Your task to perform on an android device: Search for good Japanese restaurants Image 0: 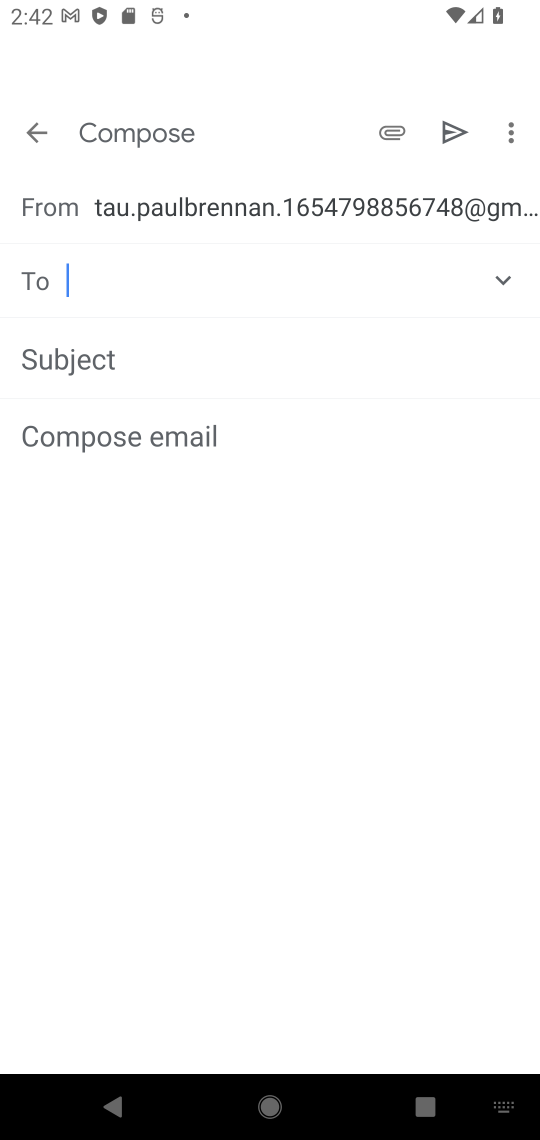
Step 0: press home button
Your task to perform on an android device: Search for good Japanese restaurants Image 1: 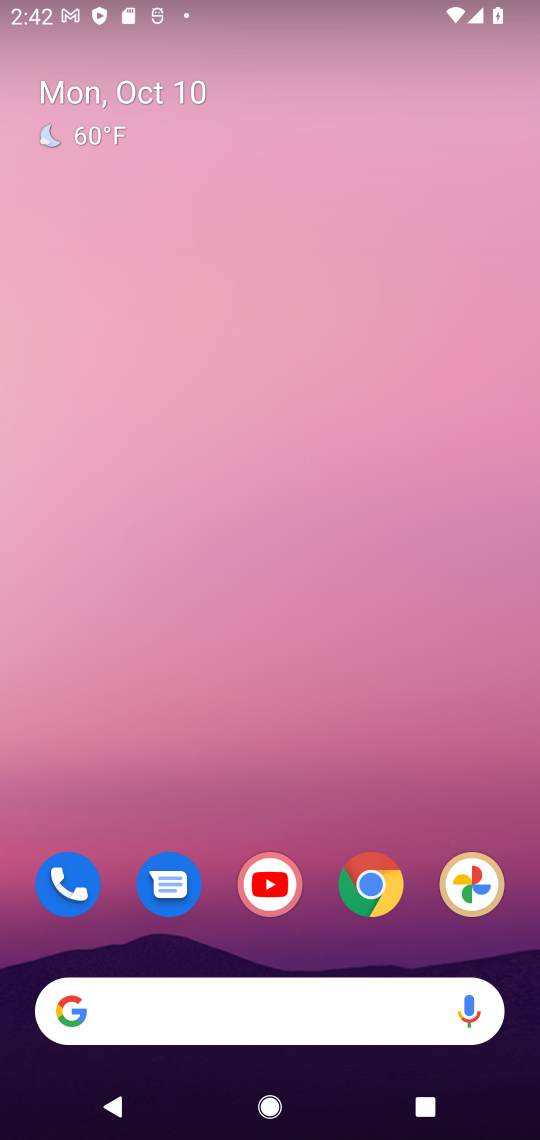
Step 1: click (377, 903)
Your task to perform on an android device: Search for good Japanese restaurants Image 2: 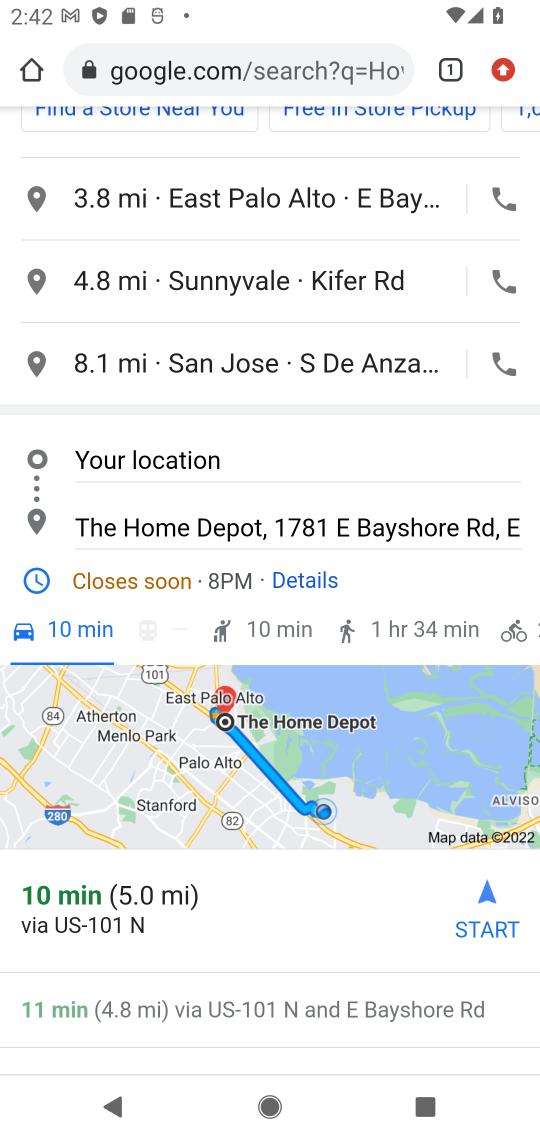
Step 2: click (331, 81)
Your task to perform on an android device: Search for good Japanese restaurants Image 3: 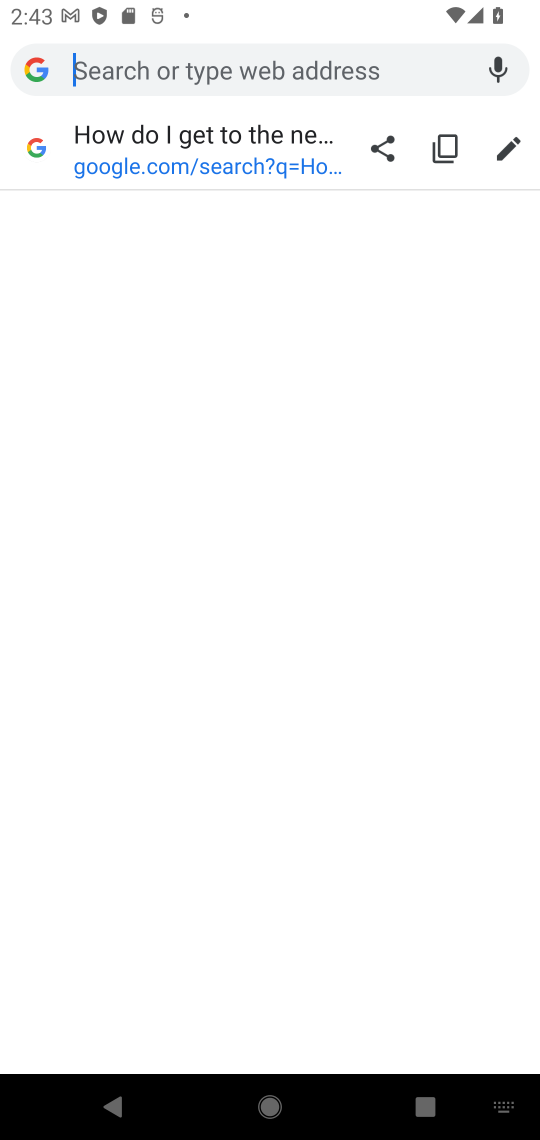
Step 3: type " good Japanese restaurants"
Your task to perform on an android device: Search for good Japanese restaurants Image 4: 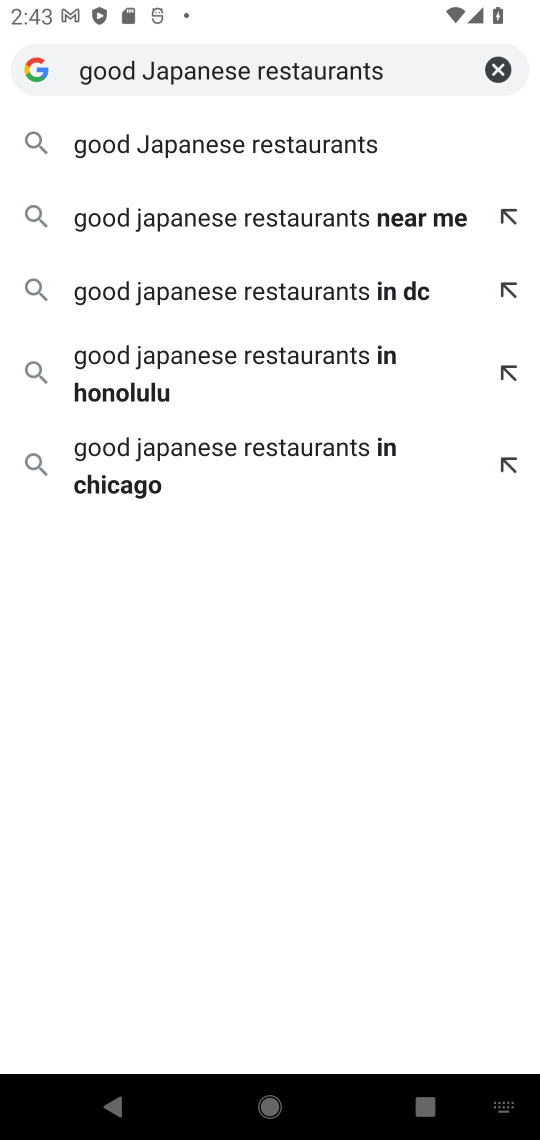
Step 4: click (302, 147)
Your task to perform on an android device: Search for good Japanese restaurants Image 5: 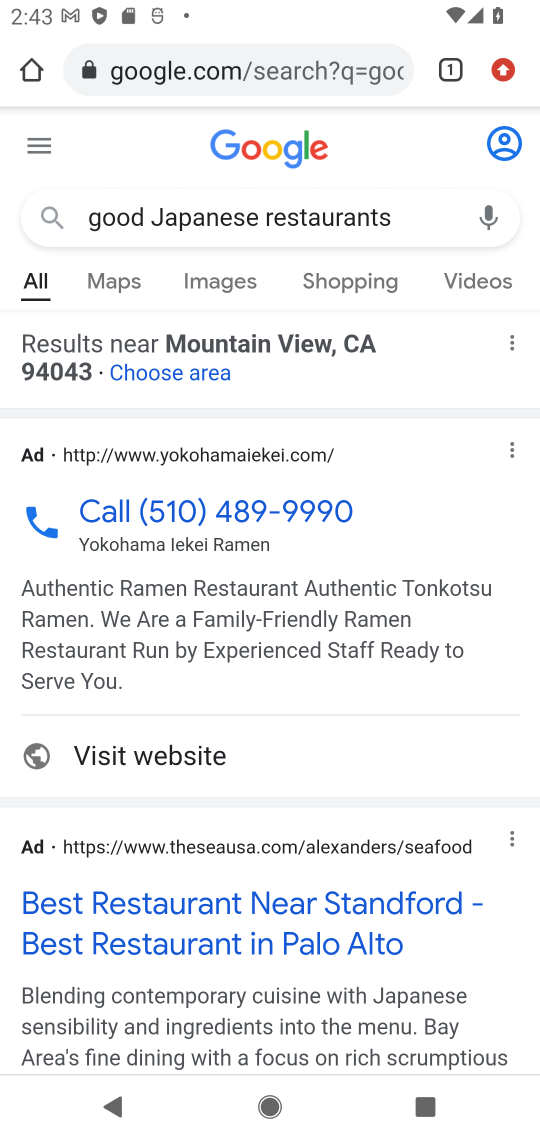
Step 5: click (136, 910)
Your task to perform on an android device: Search for good Japanese restaurants Image 6: 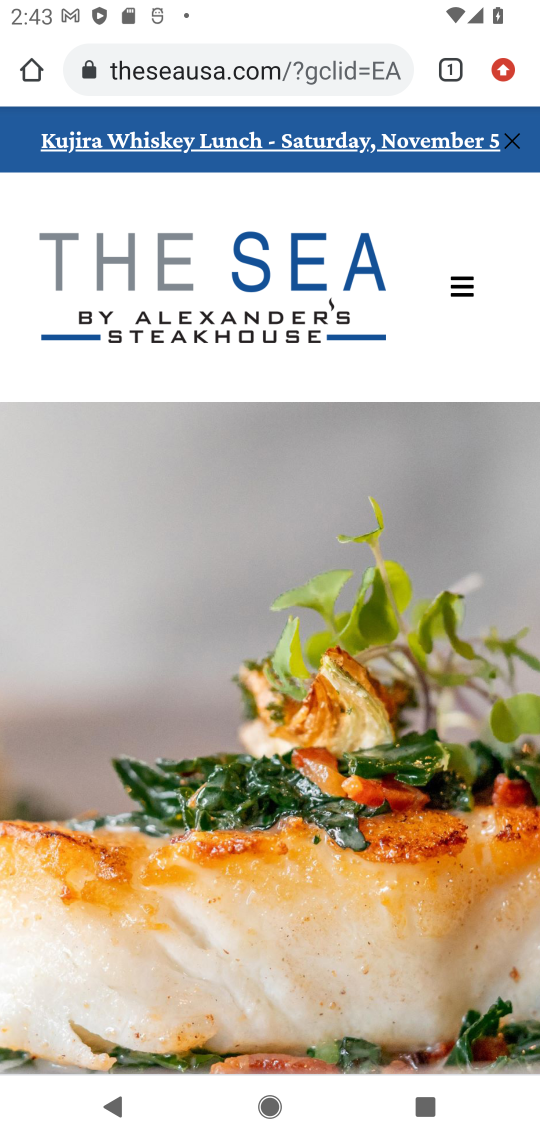
Step 6: task complete